Your task to perform on an android device: Go to Android settings Image 0: 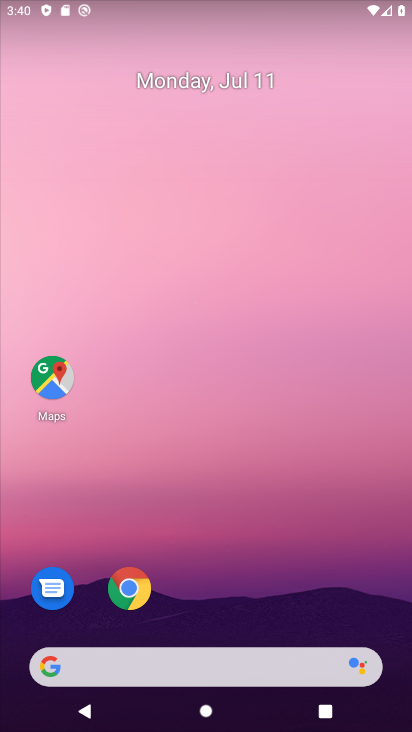
Step 0: drag from (363, 608) to (345, 136)
Your task to perform on an android device: Go to Android settings Image 1: 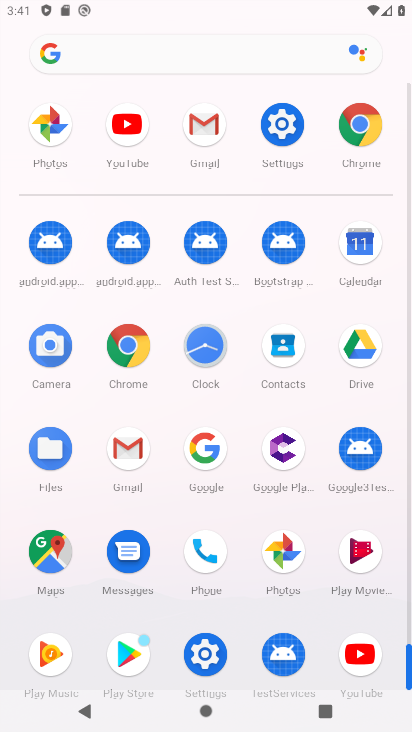
Step 1: click (282, 131)
Your task to perform on an android device: Go to Android settings Image 2: 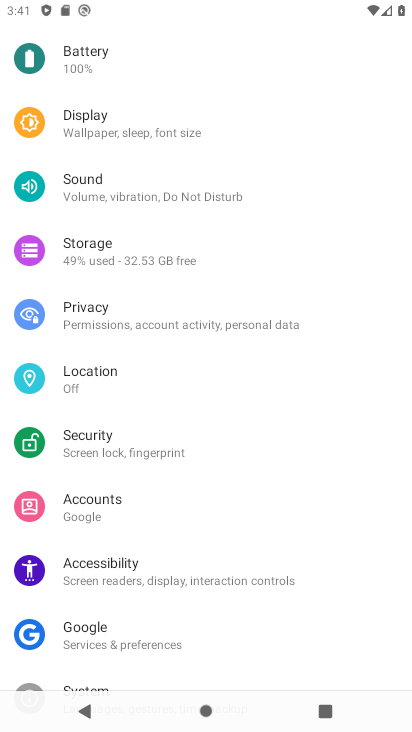
Step 2: drag from (342, 156) to (342, 228)
Your task to perform on an android device: Go to Android settings Image 3: 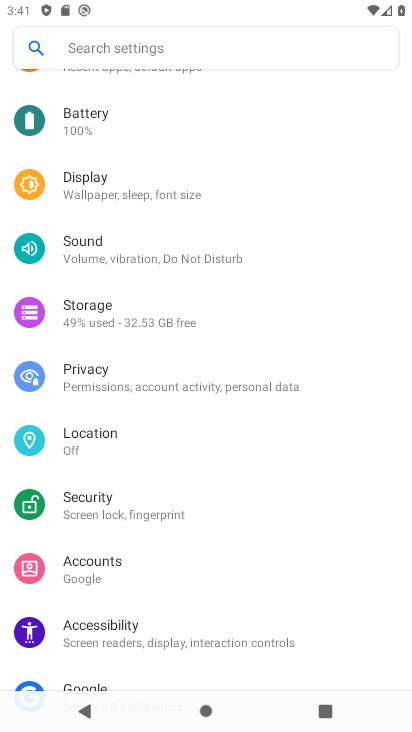
Step 3: drag from (342, 183) to (335, 320)
Your task to perform on an android device: Go to Android settings Image 4: 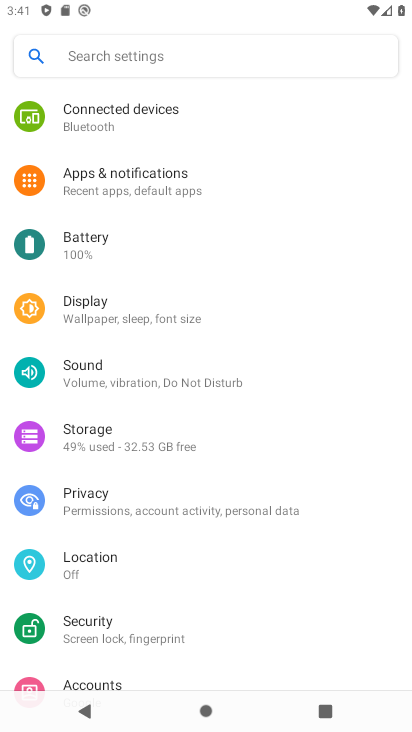
Step 4: drag from (328, 237) to (320, 348)
Your task to perform on an android device: Go to Android settings Image 5: 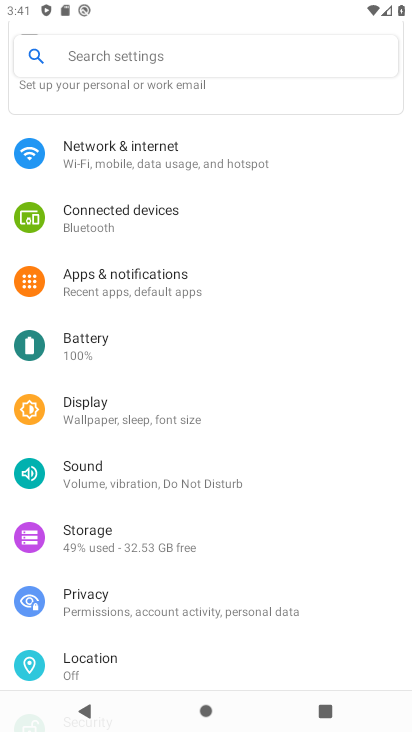
Step 5: drag from (323, 194) to (338, 388)
Your task to perform on an android device: Go to Android settings Image 6: 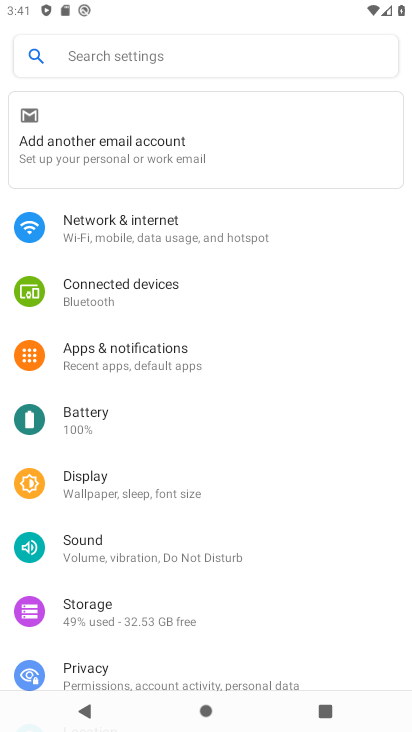
Step 6: drag from (347, 427) to (352, 346)
Your task to perform on an android device: Go to Android settings Image 7: 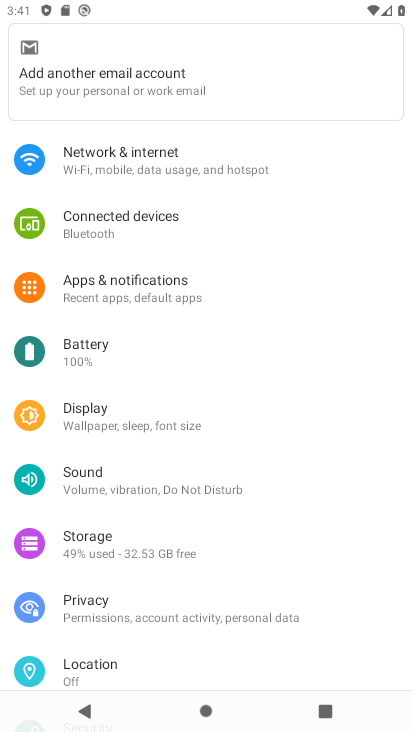
Step 7: drag from (343, 426) to (341, 342)
Your task to perform on an android device: Go to Android settings Image 8: 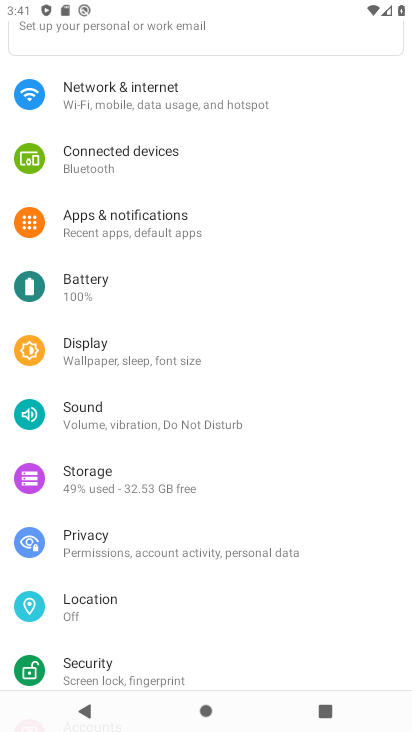
Step 8: drag from (351, 416) to (349, 322)
Your task to perform on an android device: Go to Android settings Image 9: 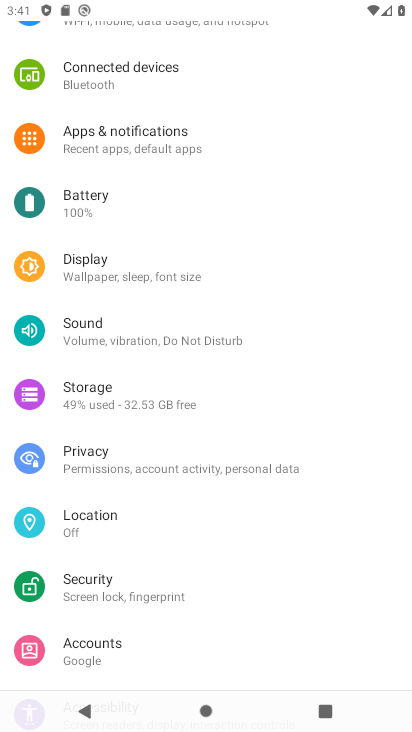
Step 9: drag from (341, 442) to (344, 320)
Your task to perform on an android device: Go to Android settings Image 10: 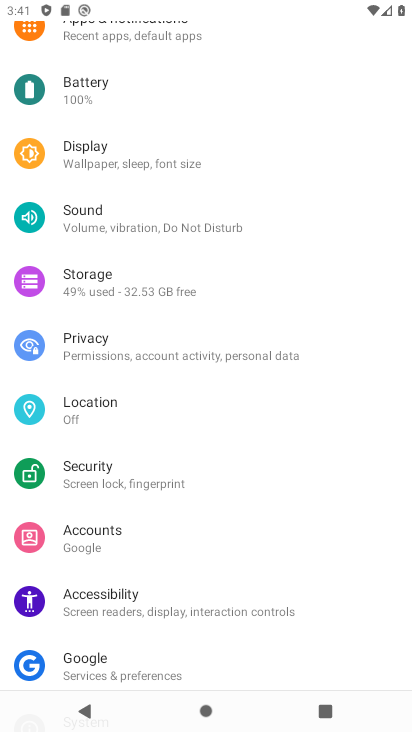
Step 10: drag from (348, 475) to (346, 360)
Your task to perform on an android device: Go to Android settings Image 11: 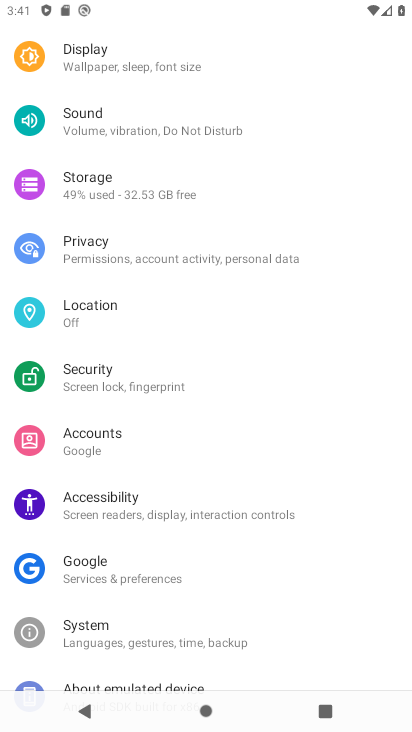
Step 11: drag from (344, 481) to (361, 340)
Your task to perform on an android device: Go to Android settings Image 12: 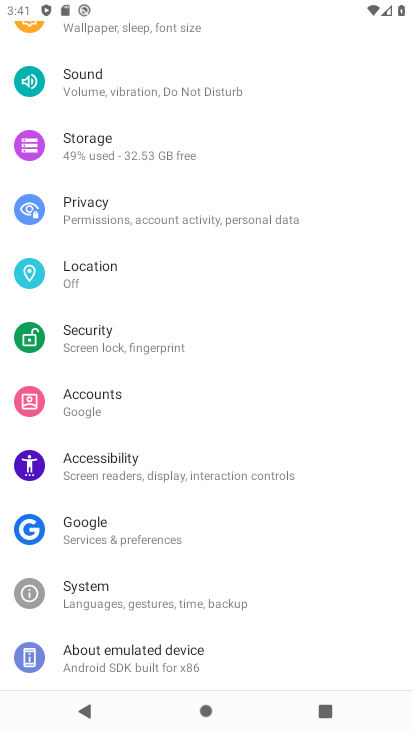
Step 12: click (259, 603)
Your task to perform on an android device: Go to Android settings Image 13: 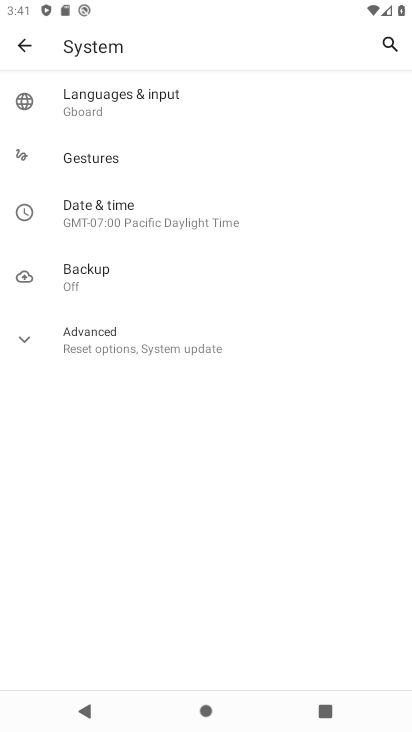
Step 13: click (261, 345)
Your task to perform on an android device: Go to Android settings Image 14: 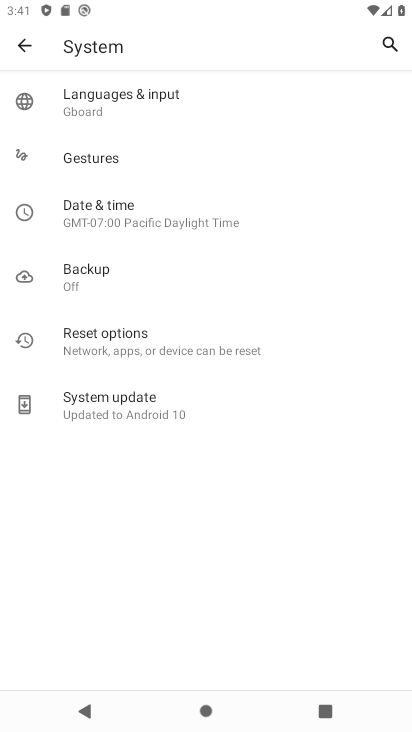
Step 14: task complete